Your task to perform on an android device: How much does the LG TV cost? Image 0: 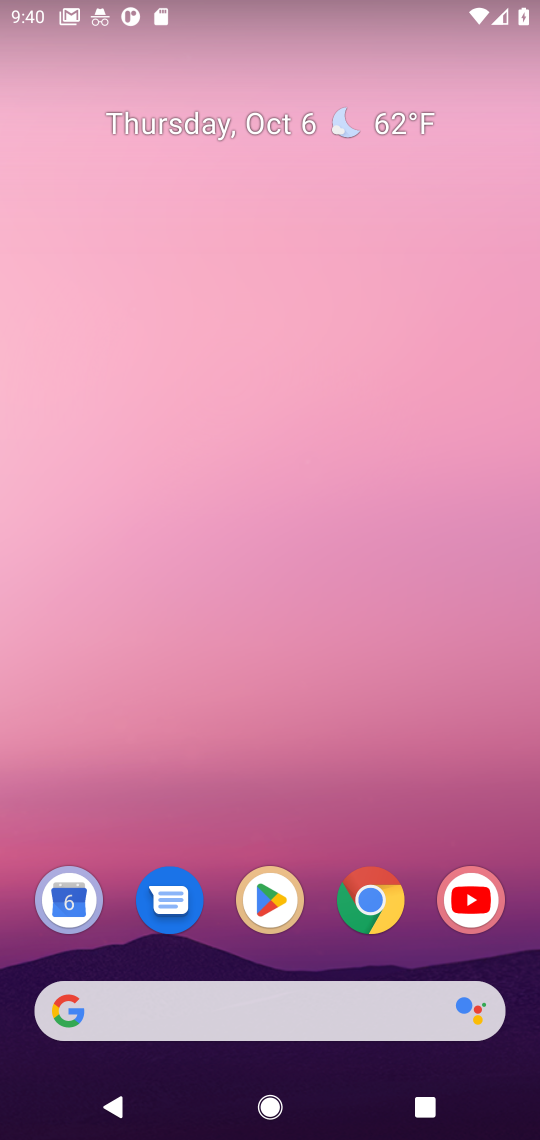
Step 0: press home button
Your task to perform on an android device: How much does the LG TV cost? Image 1: 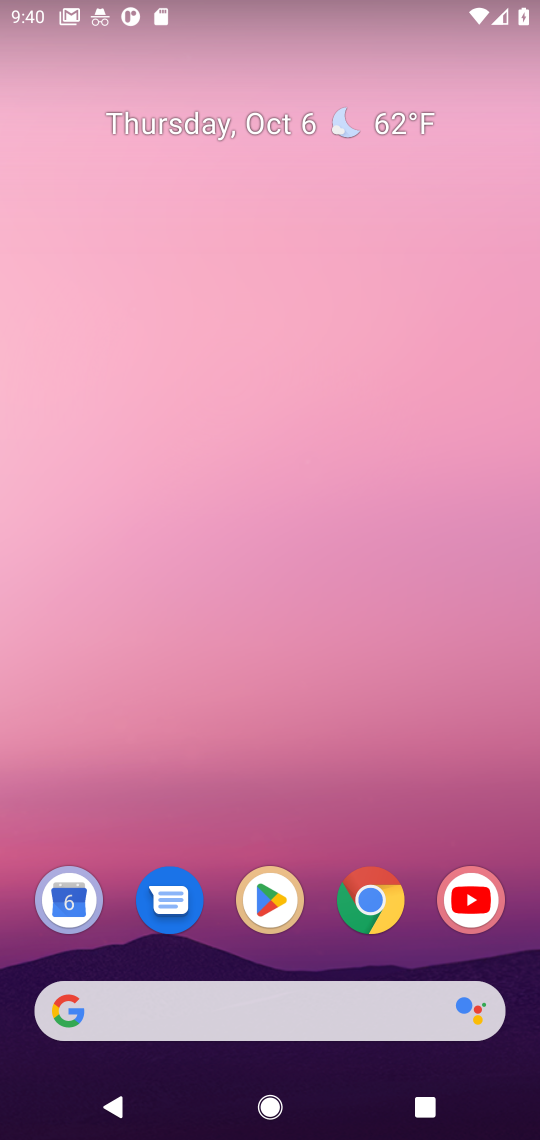
Step 1: click (380, 1016)
Your task to perform on an android device: How much does the LG TV cost? Image 2: 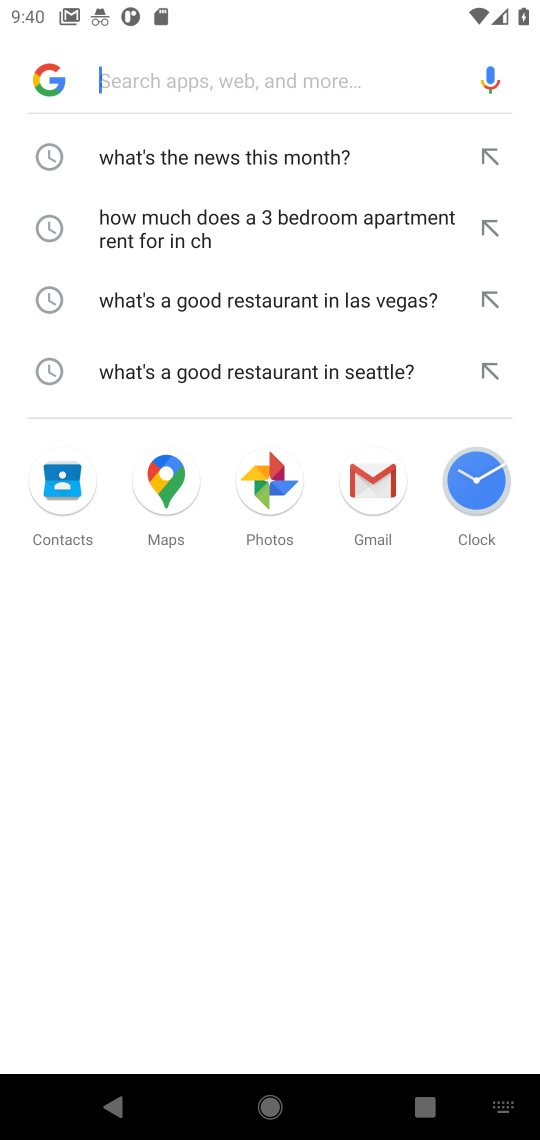
Step 2: type "How much does the LG TV cost?"
Your task to perform on an android device: How much does the LG TV cost? Image 3: 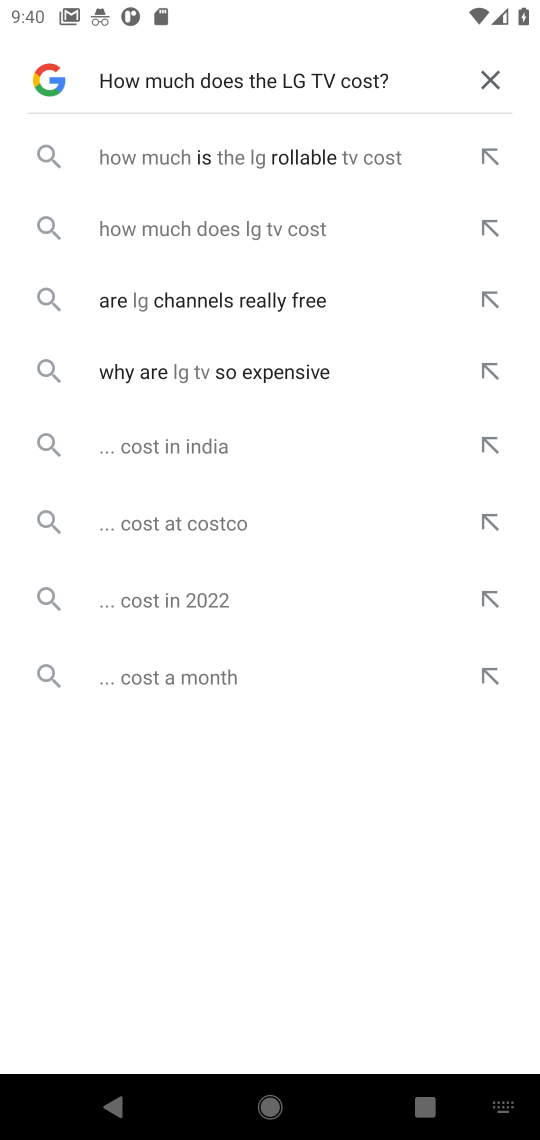
Step 3: press enter
Your task to perform on an android device: How much does the LG TV cost? Image 4: 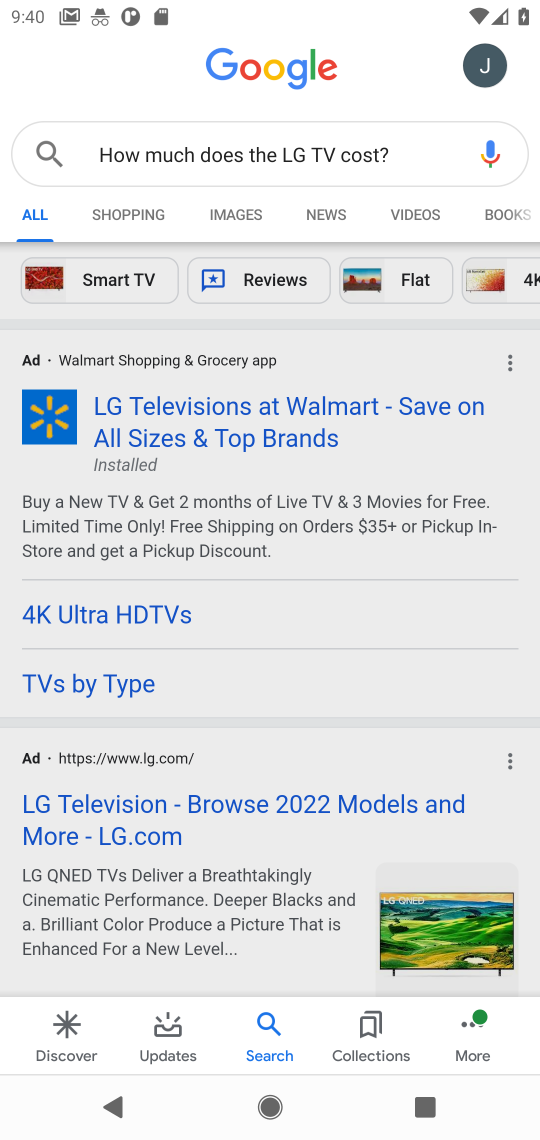
Step 4: click (171, 798)
Your task to perform on an android device: How much does the LG TV cost? Image 5: 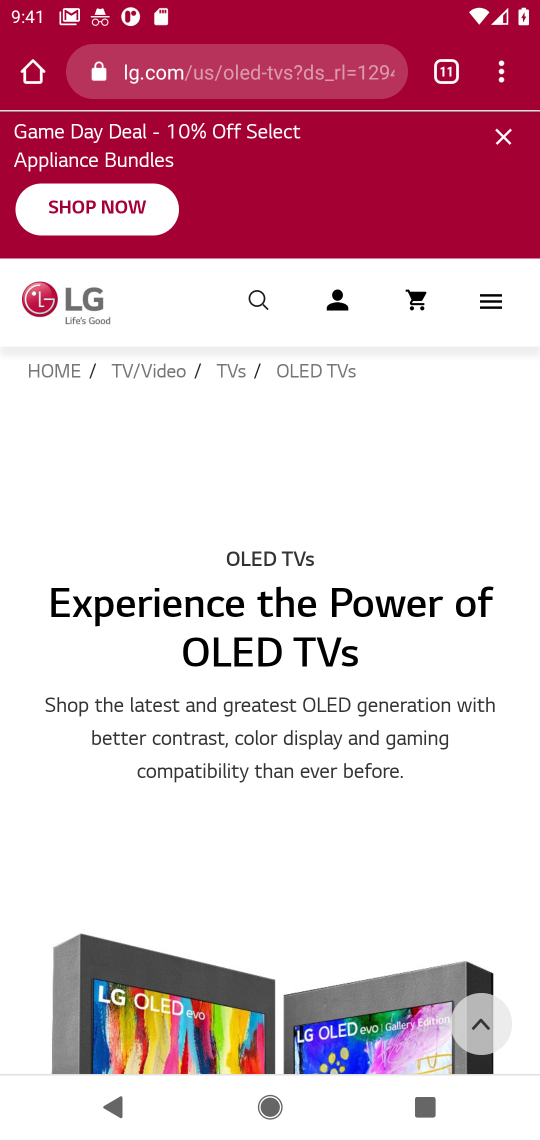
Step 5: task complete